Your task to perform on an android device: turn on wifi Image 0: 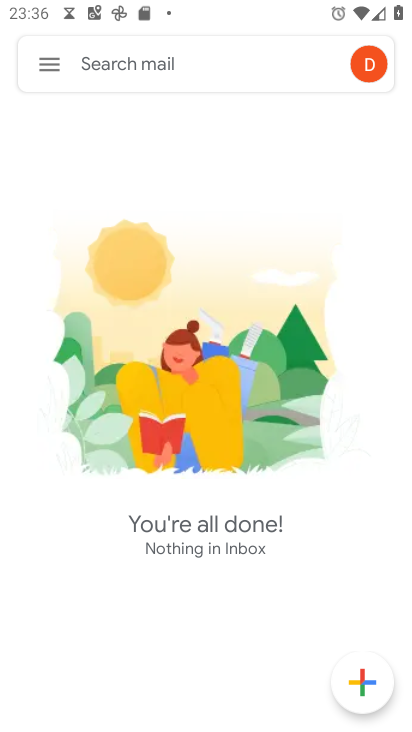
Step 0: press home button
Your task to perform on an android device: turn on wifi Image 1: 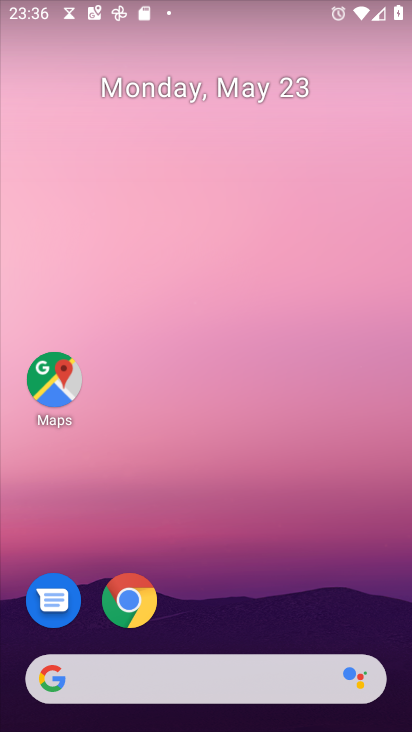
Step 1: drag from (199, 724) to (194, 173)
Your task to perform on an android device: turn on wifi Image 2: 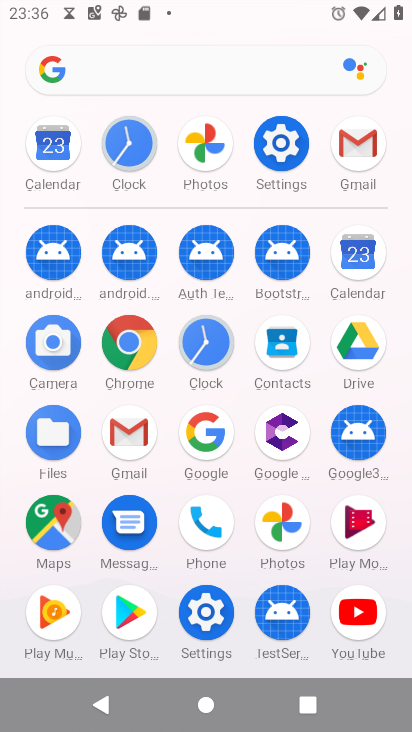
Step 2: click (272, 148)
Your task to perform on an android device: turn on wifi Image 3: 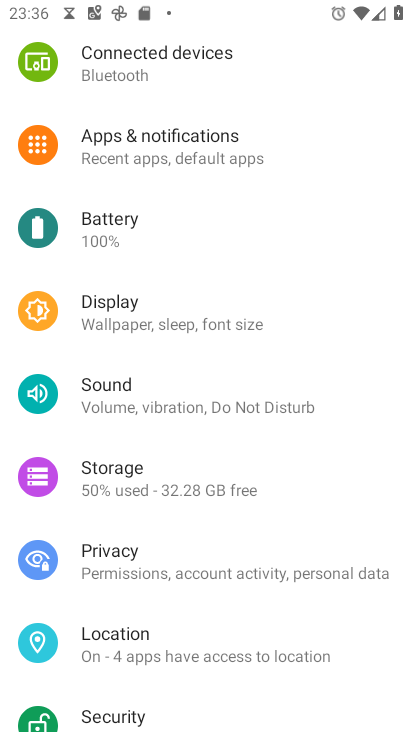
Step 3: drag from (279, 130) to (325, 466)
Your task to perform on an android device: turn on wifi Image 4: 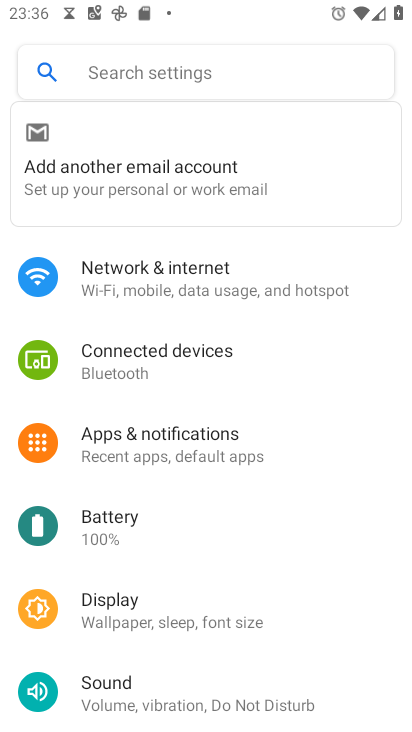
Step 4: click (211, 266)
Your task to perform on an android device: turn on wifi Image 5: 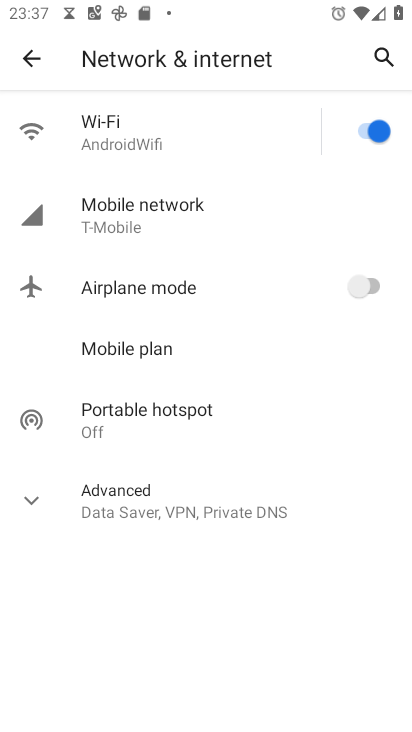
Step 5: task complete